Your task to perform on an android device: Show me the alarms in the clock app Image 0: 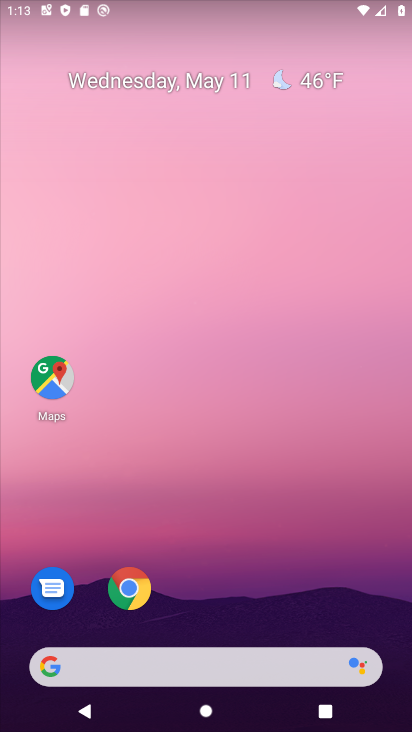
Step 0: drag from (239, 579) to (238, 166)
Your task to perform on an android device: Show me the alarms in the clock app Image 1: 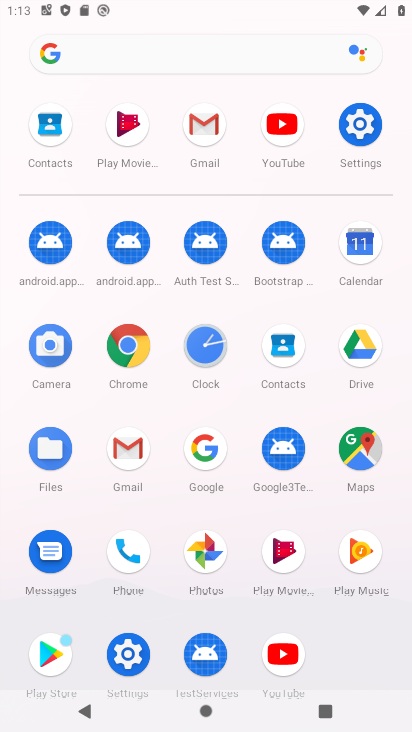
Step 1: click (213, 357)
Your task to perform on an android device: Show me the alarms in the clock app Image 2: 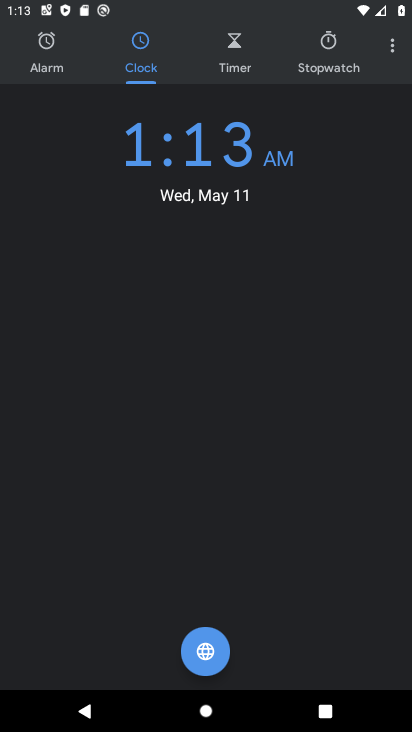
Step 2: click (63, 77)
Your task to perform on an android device: Show me the alarms in the clock app Image 3: 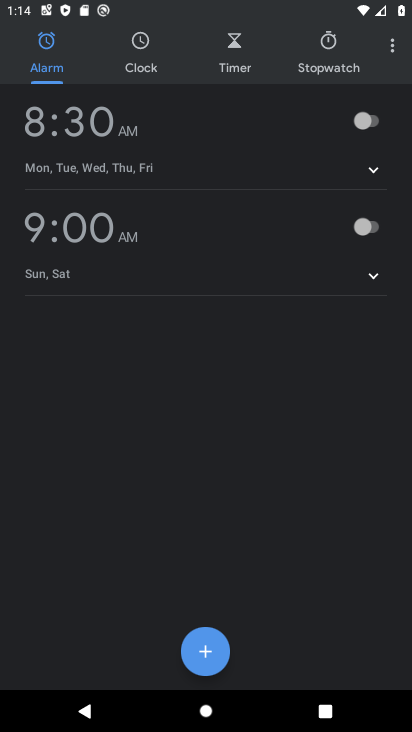
Step 3: task complete